Your task to perform on an android device: toggle improve location accuracy Image 0: 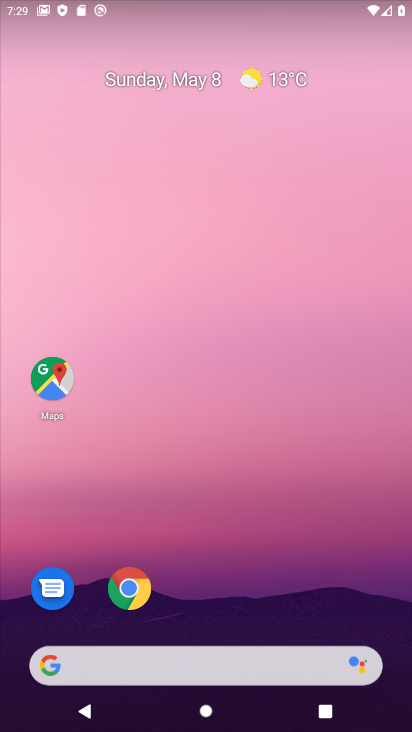
Step 0: drag from (321, 595) to (299, 60)
Your task to perform on an android device: toggle improve location accuracy Image 1: 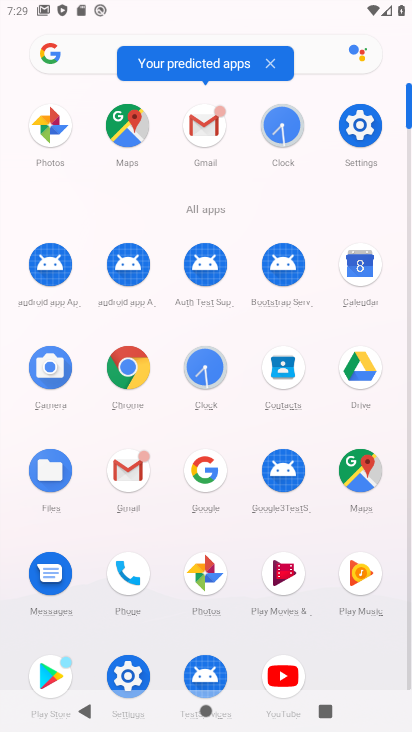
Step 1: click (139, 658)
Your task to perform on an android device: toggle improve location accuracy Image 2: 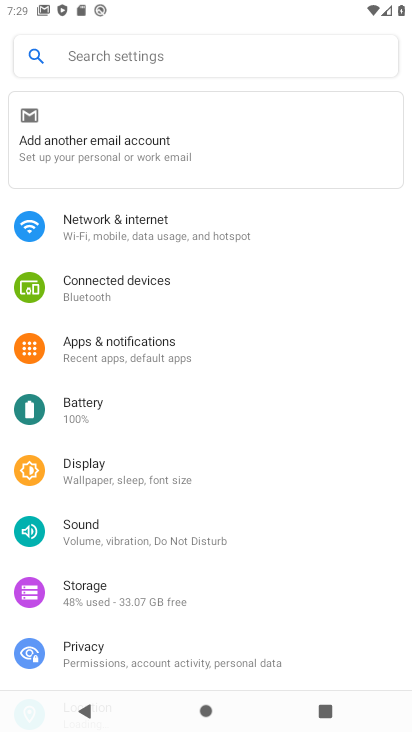
Step 2: drag from (132, 627) to (218, 196)
Your task to perform on an android device: toggle improve location accuracy Image 3: 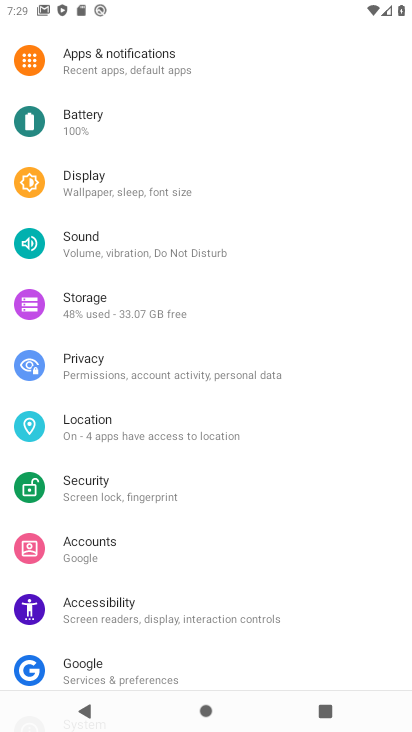
Step 3: click (104, 437)
Your task to perform on an android device: toggle improve location accuracy Image 4: 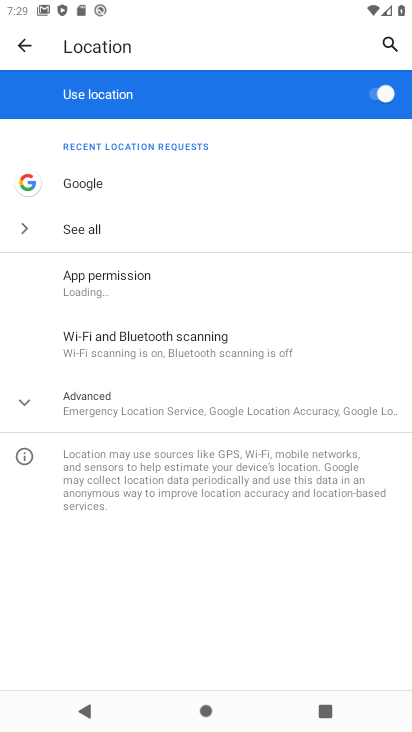
Step 4: click (32, 393)
Your task to perform on an android device: toggle improve location accuracy Image 5: 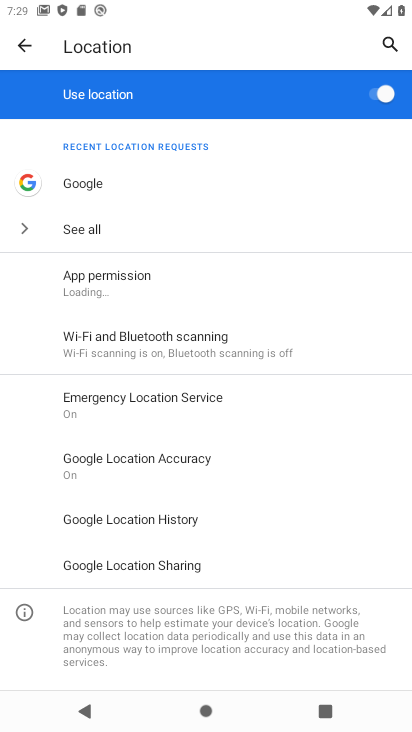
Step 5: click (119, 479)
Your task to perform on an android device: toggle improve location accuracy Image 6: 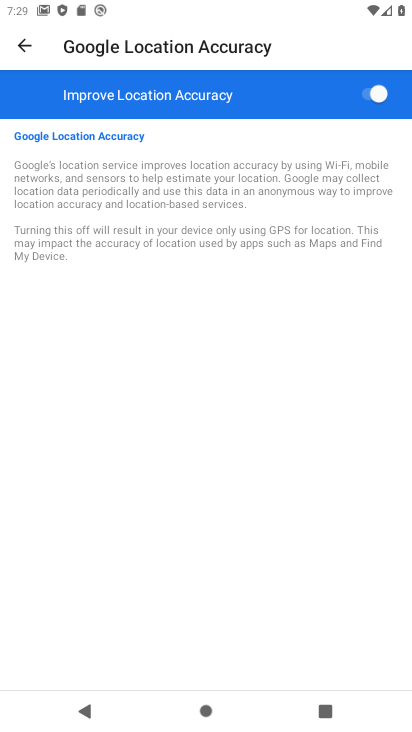
Step 6: click (340, 96)
Your task to perform on an android device: toggle improve location accuracy Image 7: 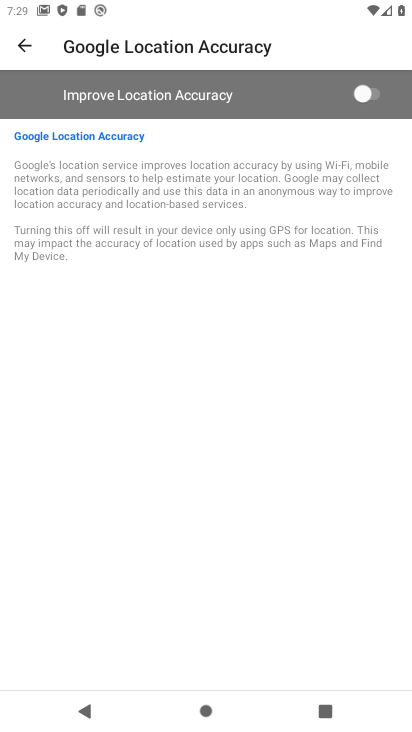
Step 7: task complete